Your task to perform on an android device: find snoozed emails in the gmail app Image 0: 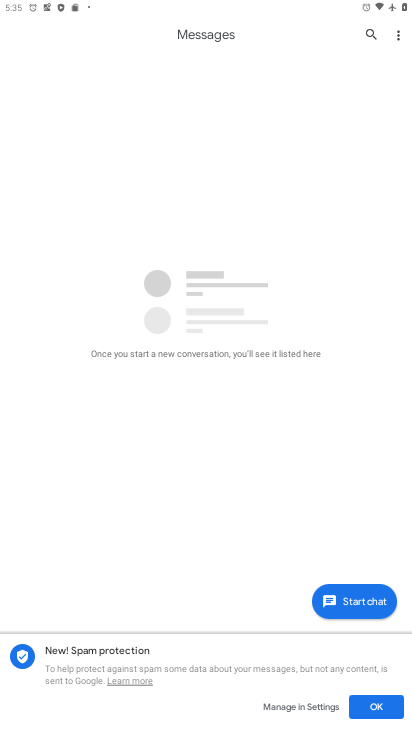
Step 0: press home button
Your task to perform on an android device: find snoozed emails in the gmail app Image 1: 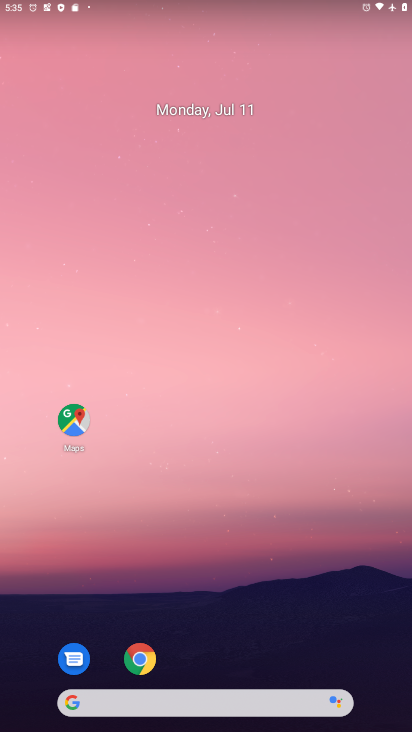
Step 1: drag from (380, 645) to (341, 108)
Your task to perform on an android device: find snoozed emails in the gmail app Image 2: 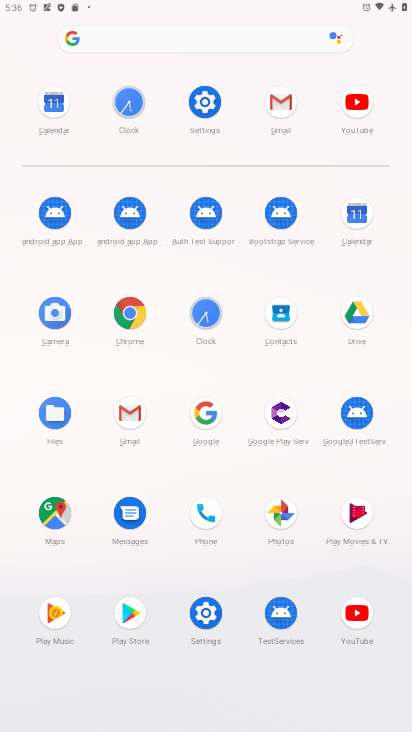
Step 2: click (128, 414)
Your task to perform on an android device: find snoozed emails in the gmail app Image 3: 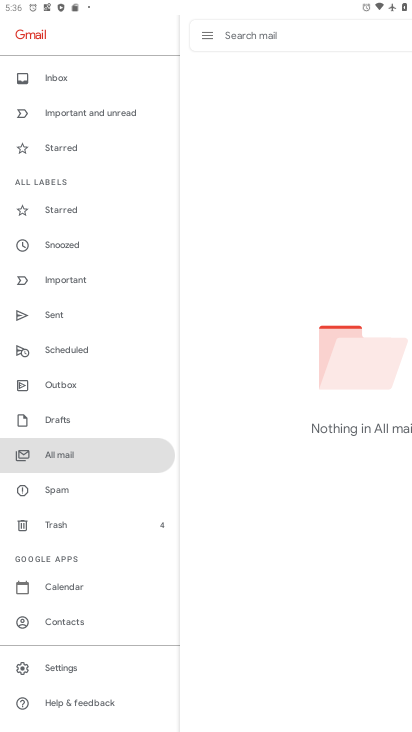
Step 3: click (48, 252)
Your task to perform on an android device: find snoozed emails in the gmail app Image 4: 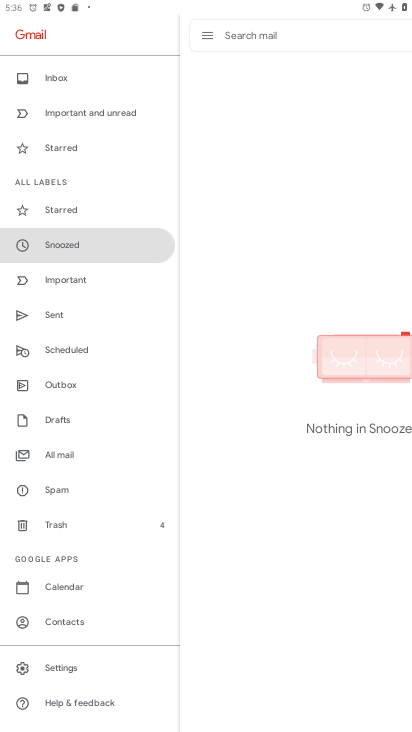
Step 4: task complete